Your task to perform on an android device: find photos in the google photos app Image 0: 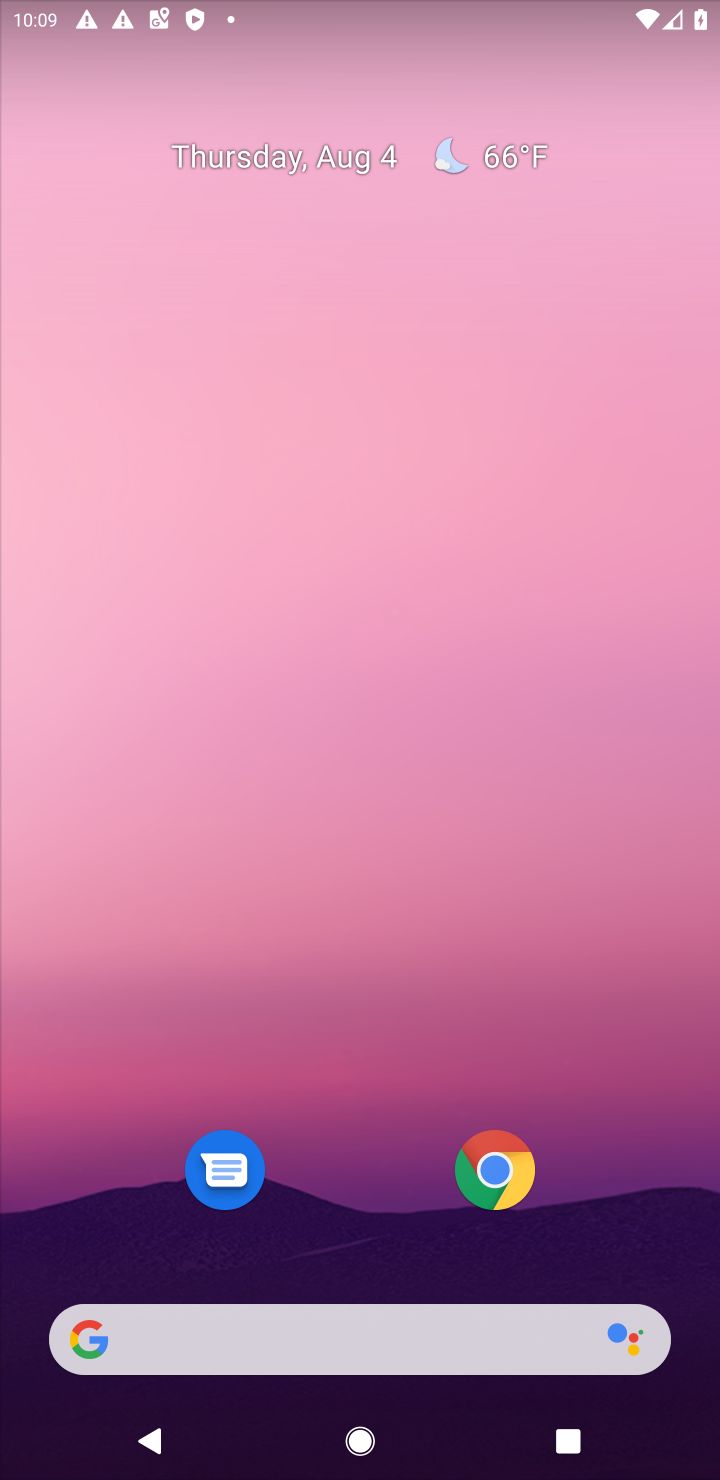
Step 0: drag from (420, 1087) to (545, 56)
Your task to perform on an android device: find photos in the google photos app Image 1: 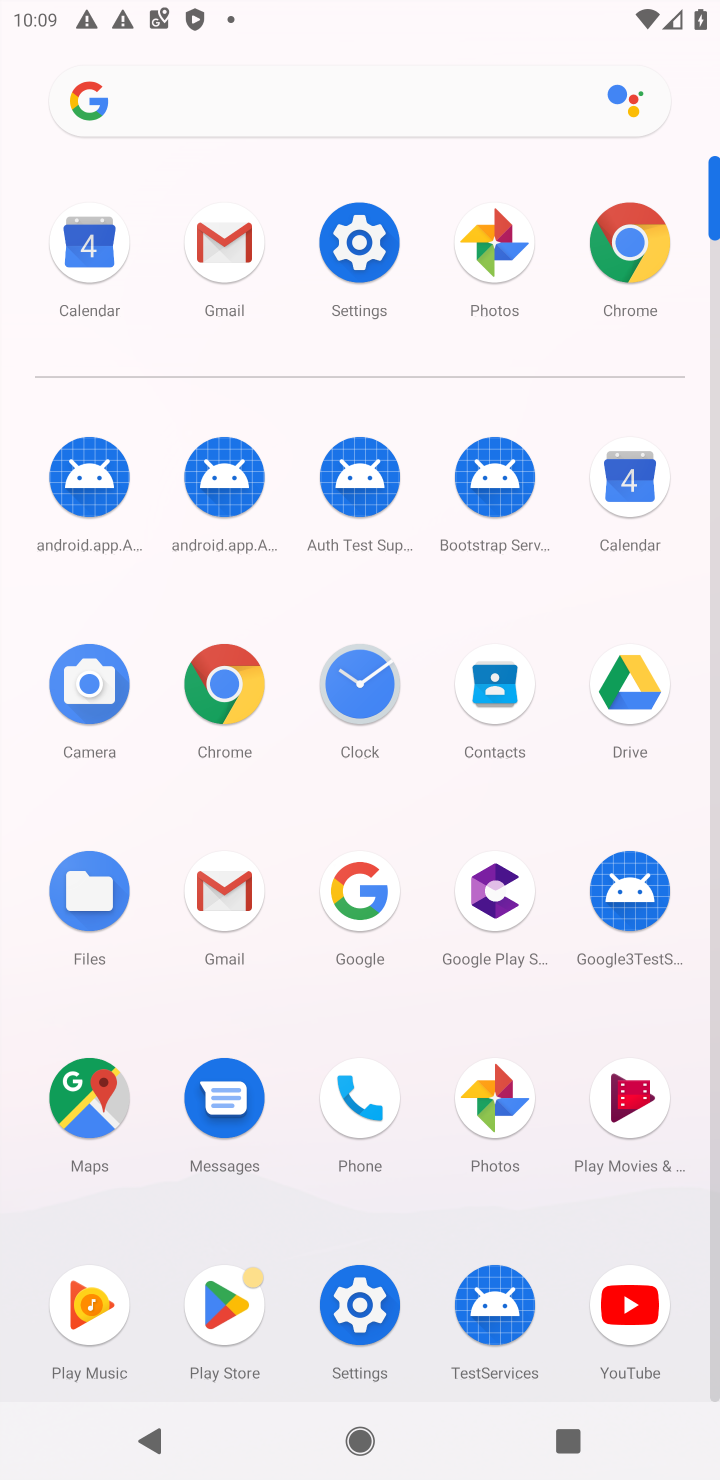
Step 1: click (505, 237)
Your task to perform on an android device: find photos in the google photos app Image 2: 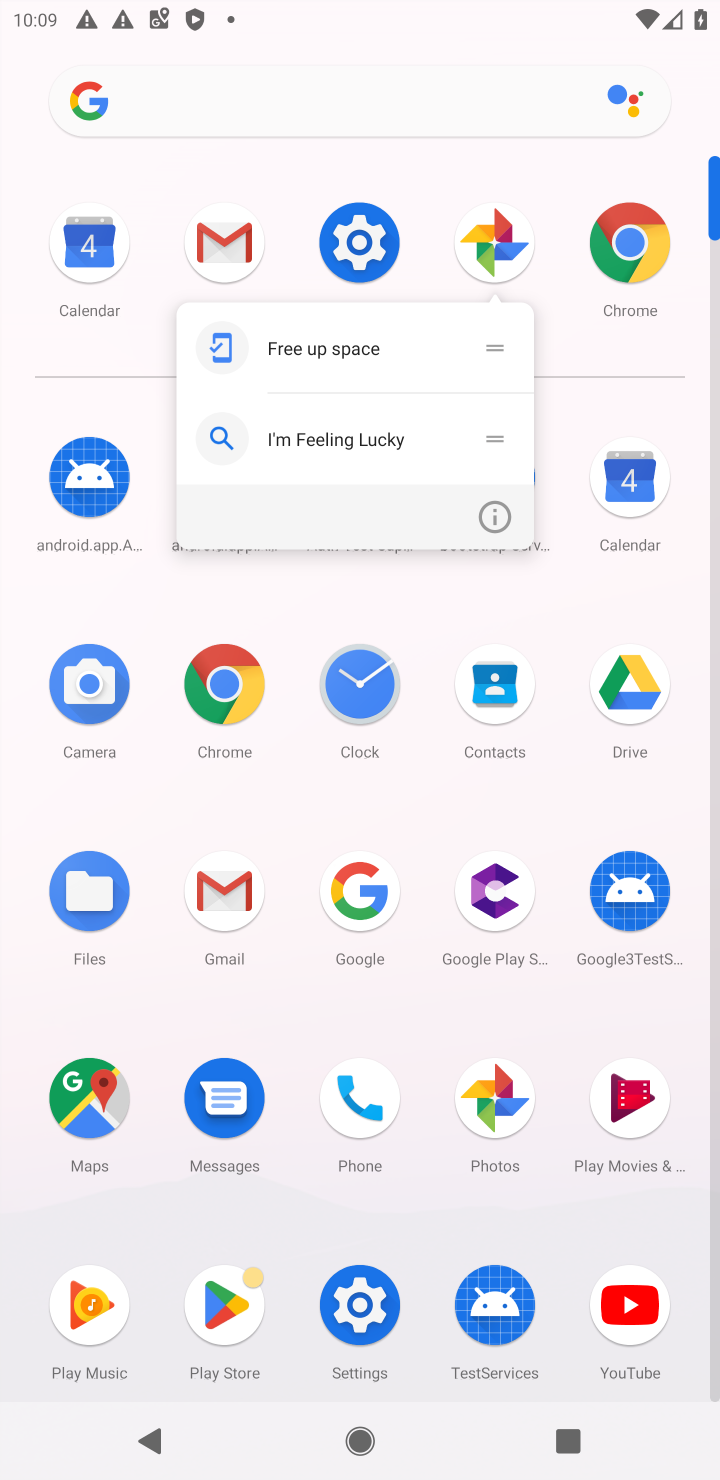
Step 2: click (500, 245)
Your task to perform on an android device: find photos in the google photos app Image 3: 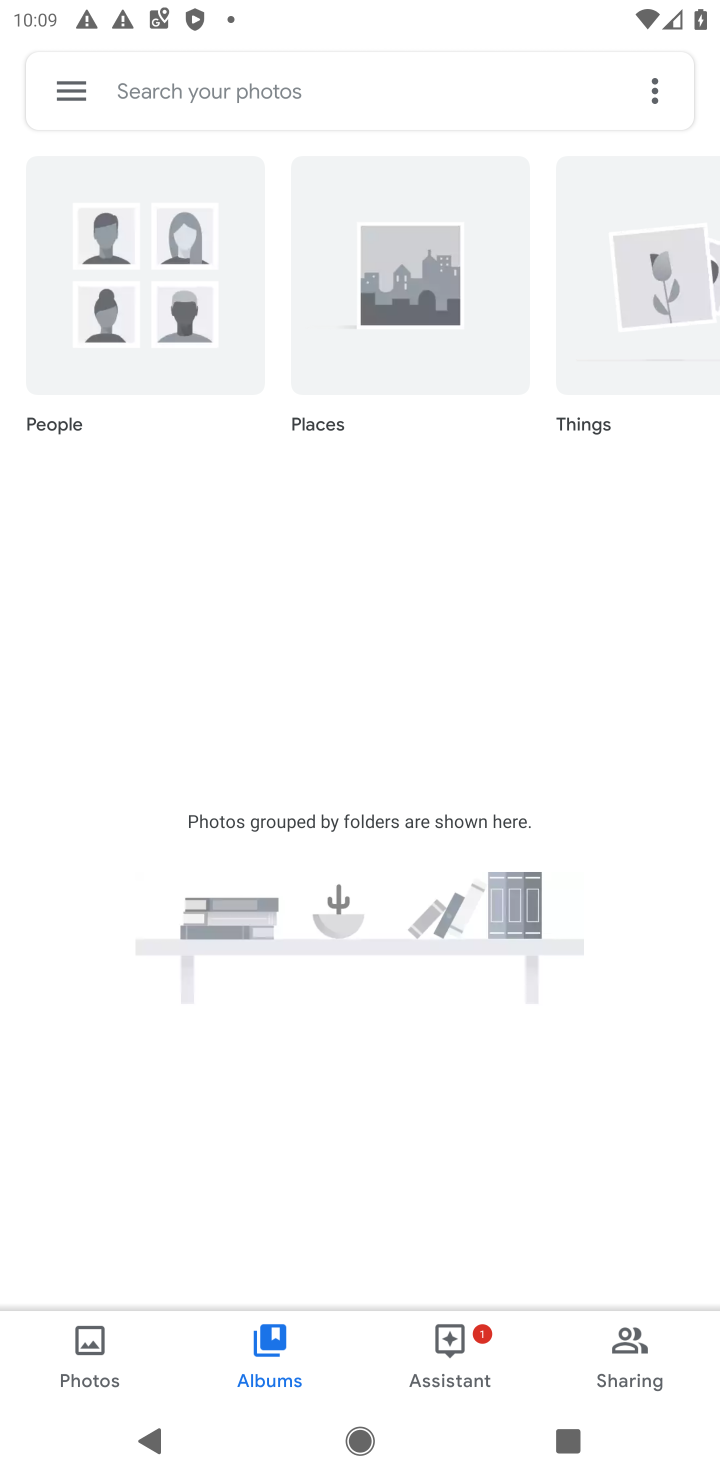
Step 3: click (88, 1357)
Your task to perform on an android device: find photos in the google photos app Image 4: 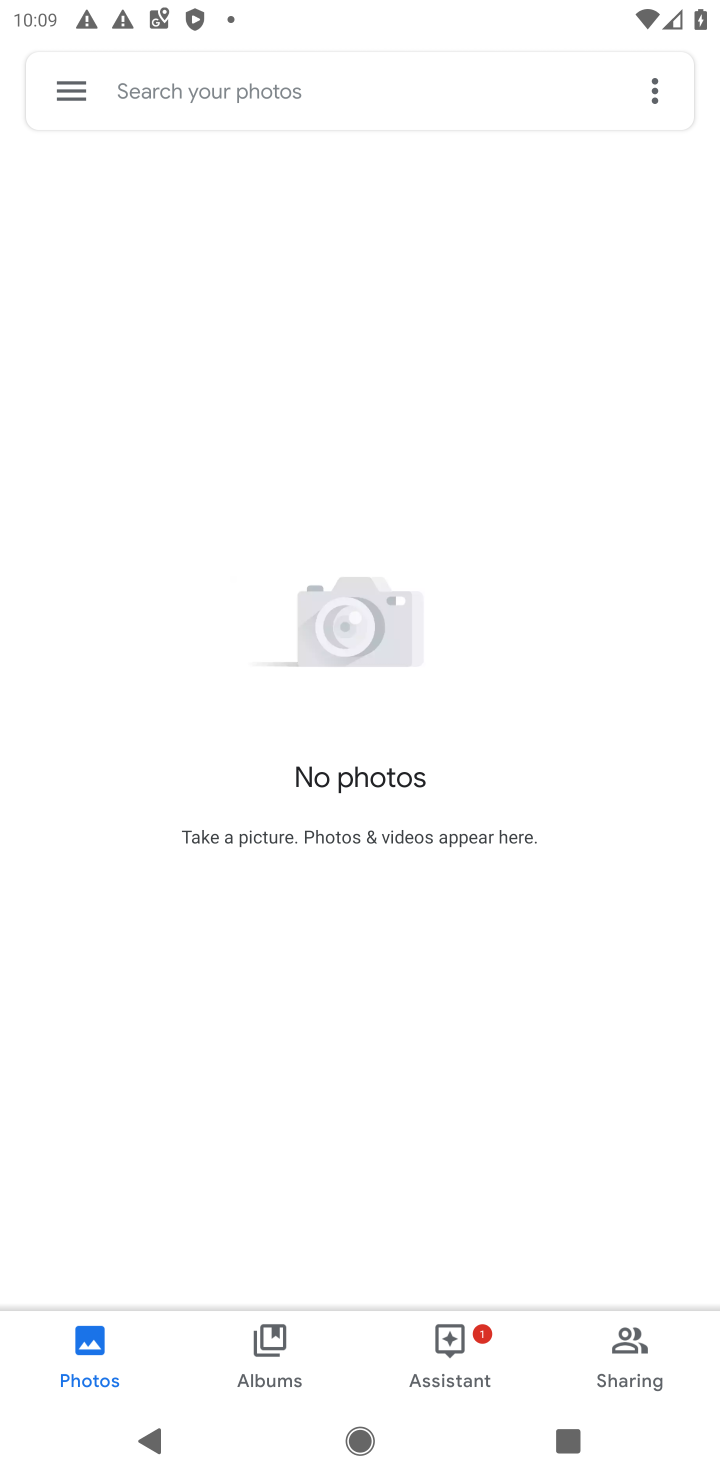
Step 4: task complete